Your task to perform on an android device: toggle location history Image 0: 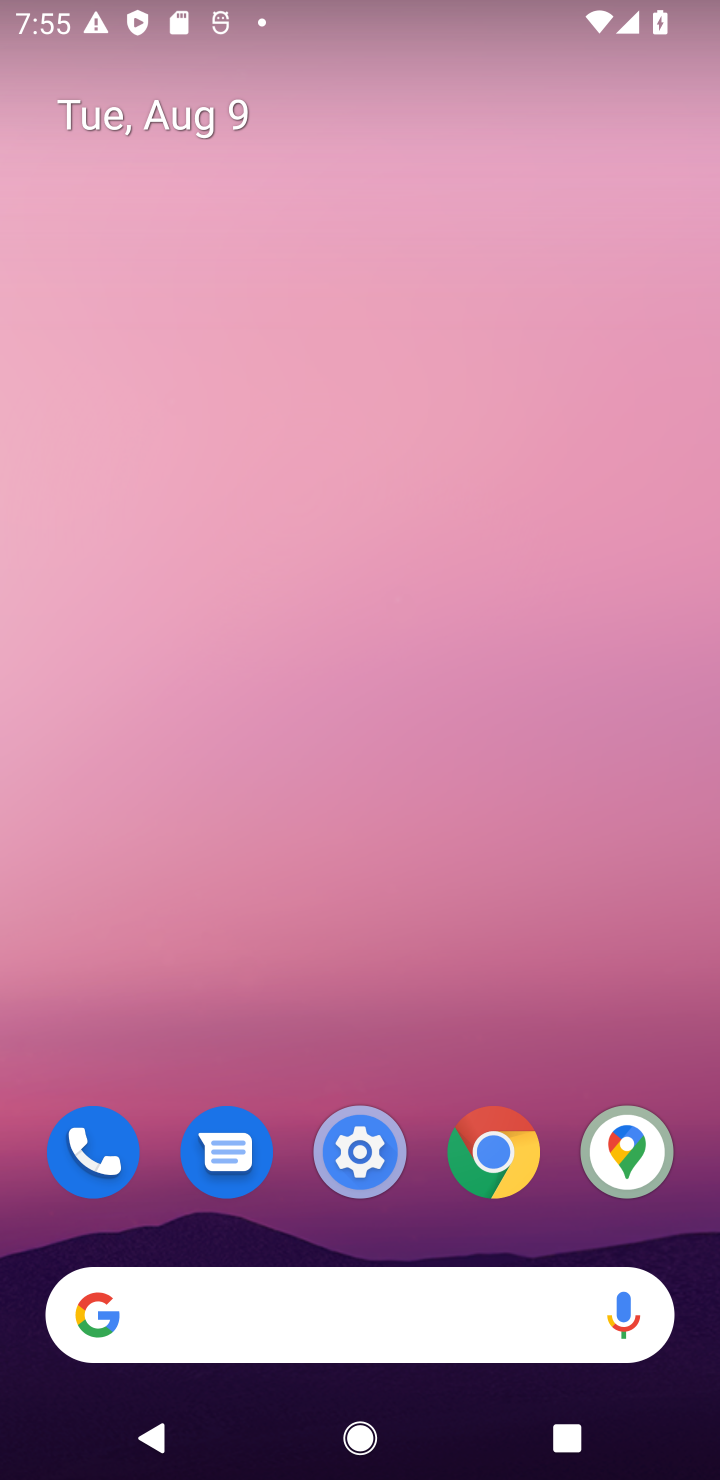
Step 0: click (385, 1146)
Your task to perform on an android device: toggle location history Image 1: 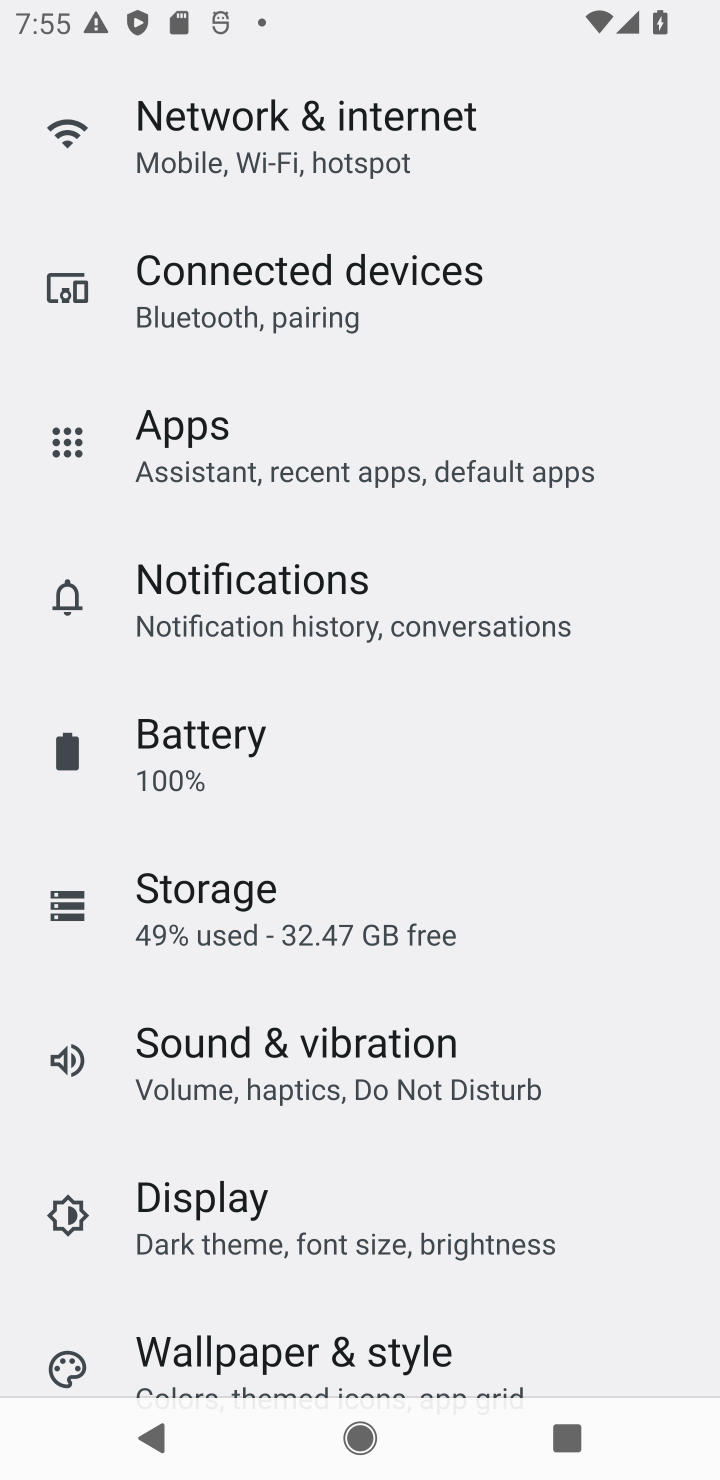
Step 1: drag from (151, 1136) to (188, 224)
Your task to perform on an android device: toggle location history Image 2: 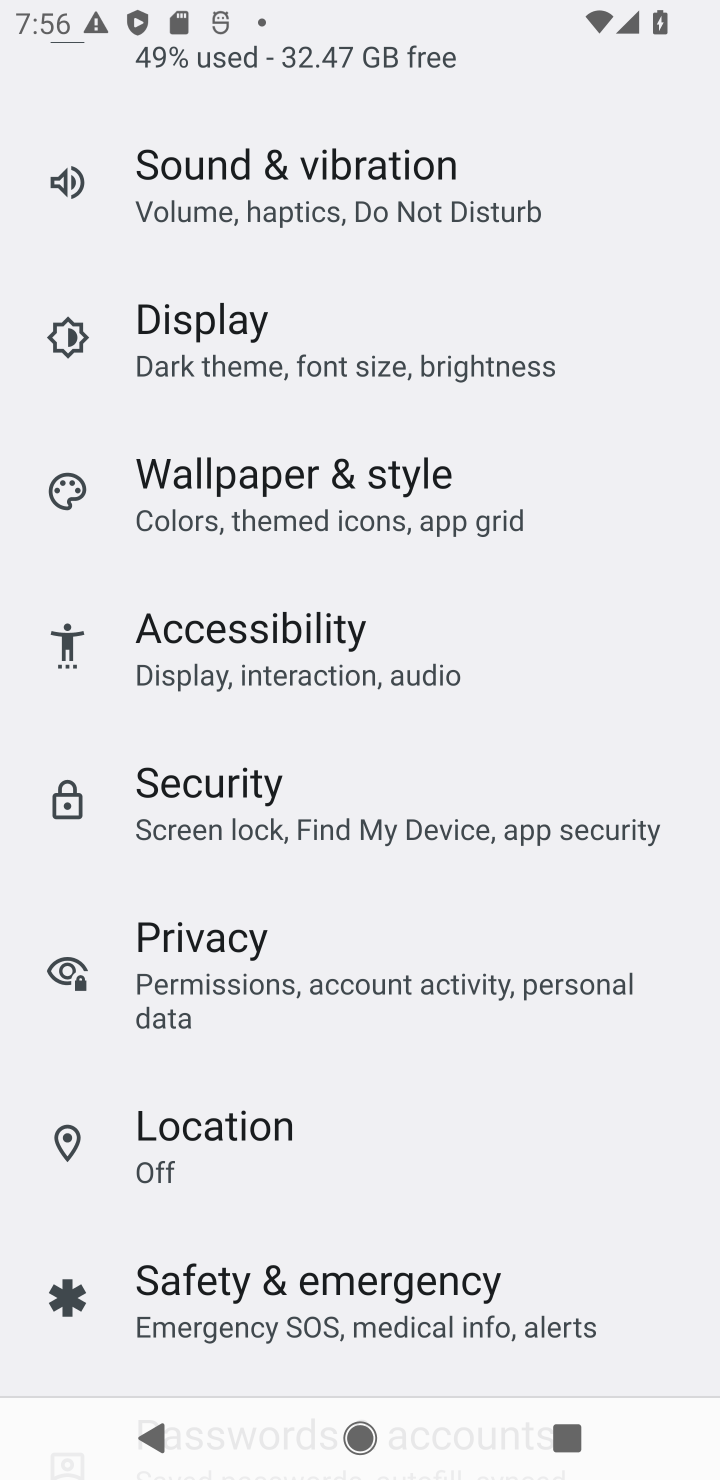
Step 2: drag from (216, 1237) to (216, 273)
Your task to perform on an android device: toggle location history Image 3: 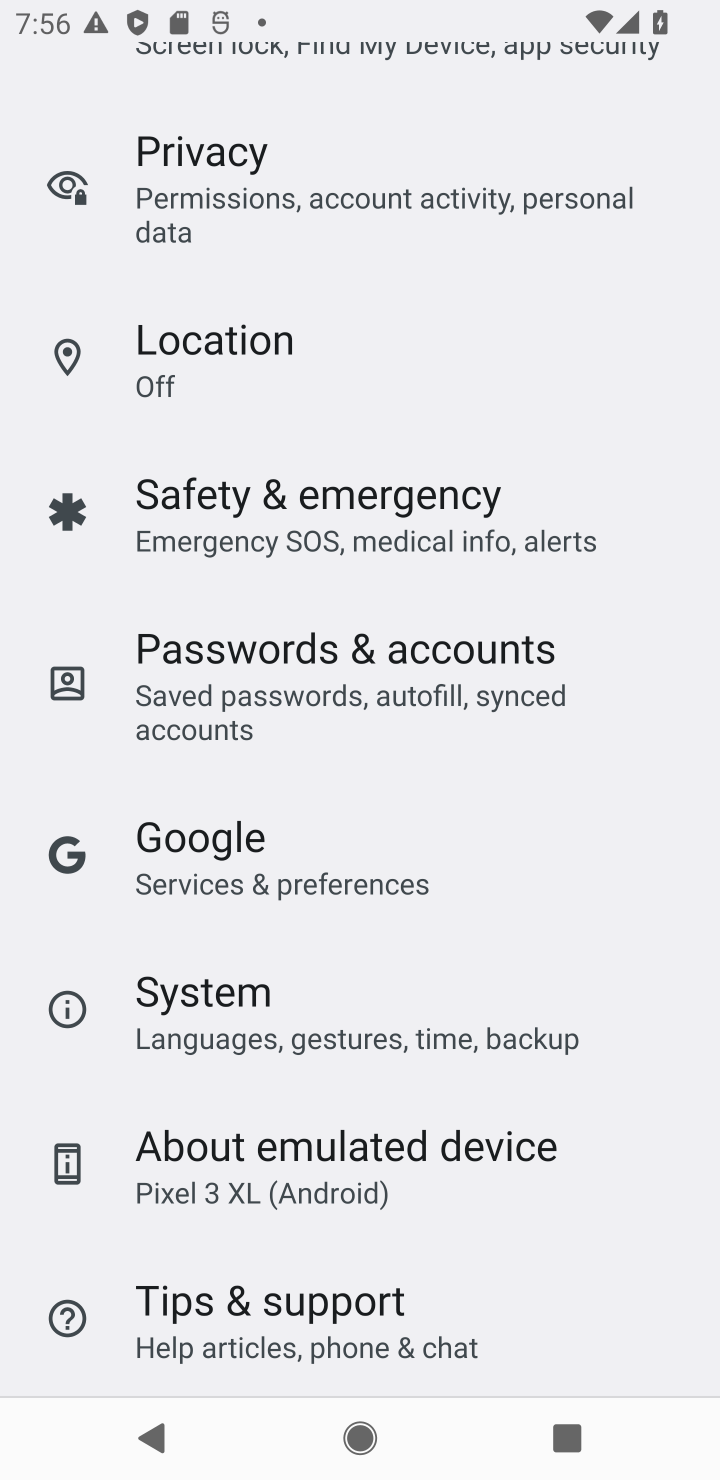
Step 3: drag from (273, 1172) to (327, 374)
Your task to perform on an android device: toggle location history Image 4: 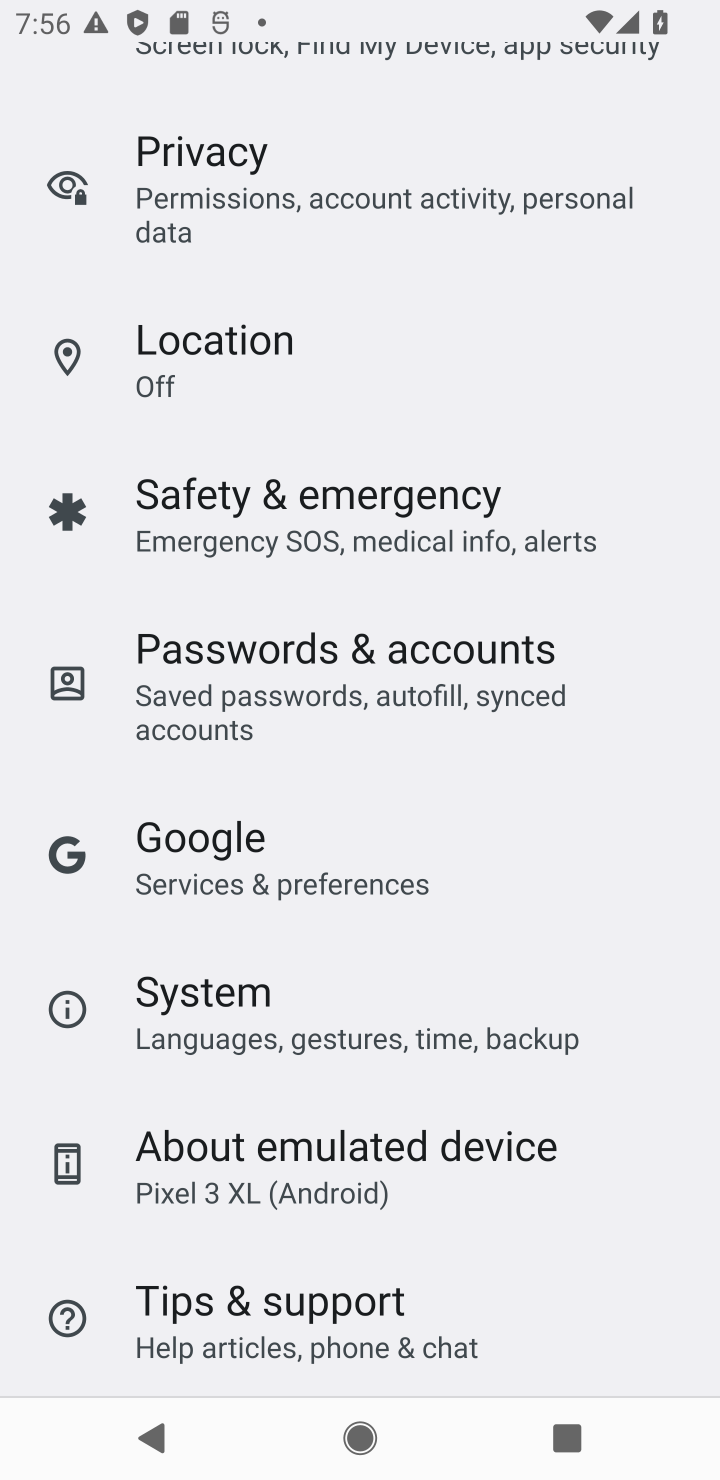
Step 4: drag from (283, 263) to (335, 1158)
Your task to perform on an android device: toggle location history Image 5: 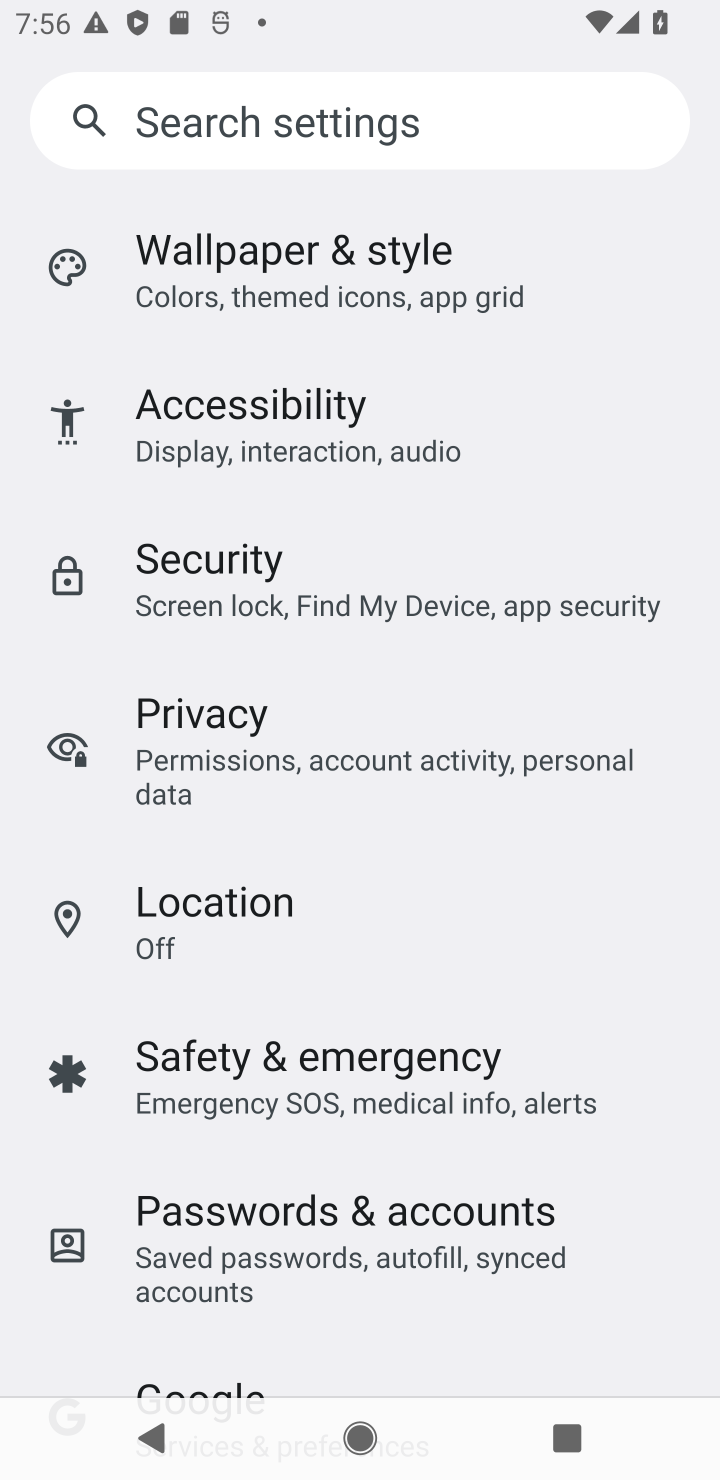
Step 5: drag from (223, 337) to (371, 1466)
Your task to perform on an android device: toggle location history Image 6: 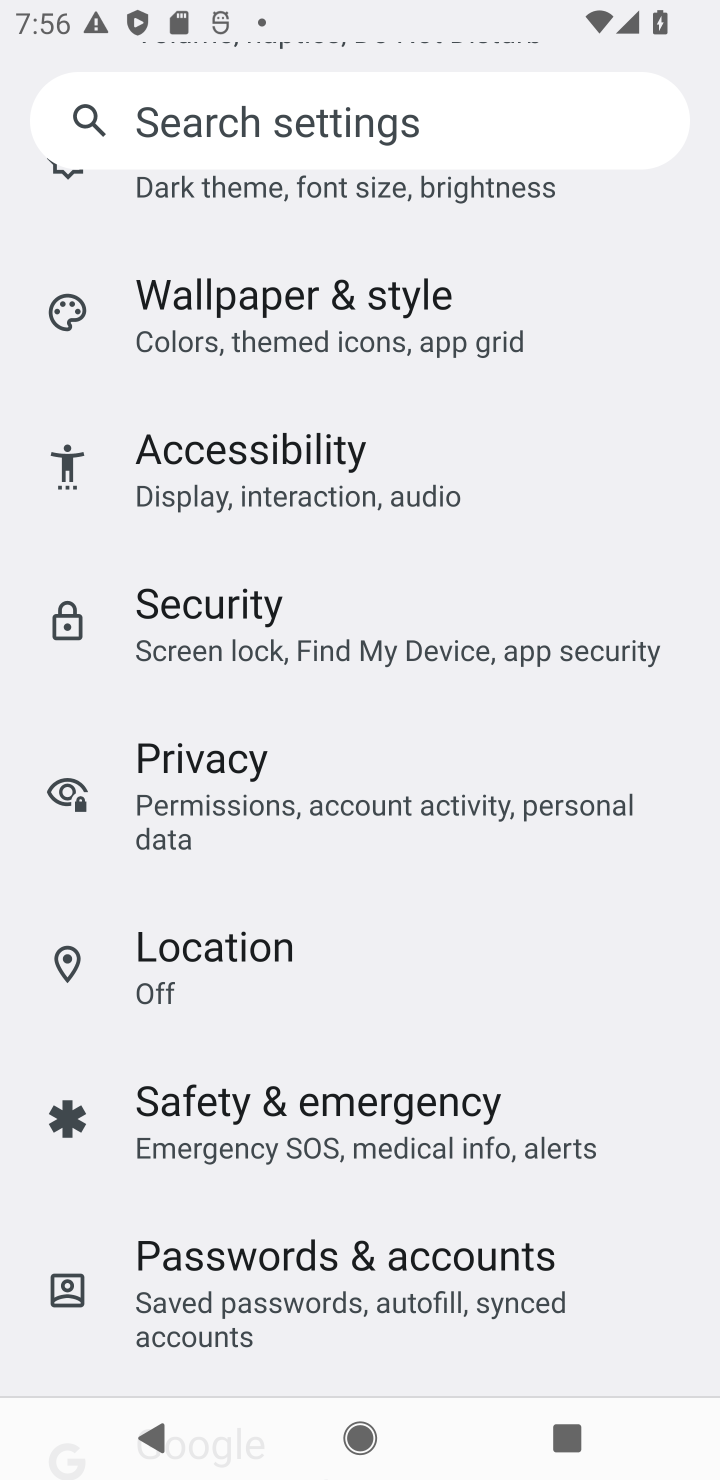
Step 6: drag from (256, 223) to (388, 1116)
Your task to perform on an android device: toggle location history Image 7: 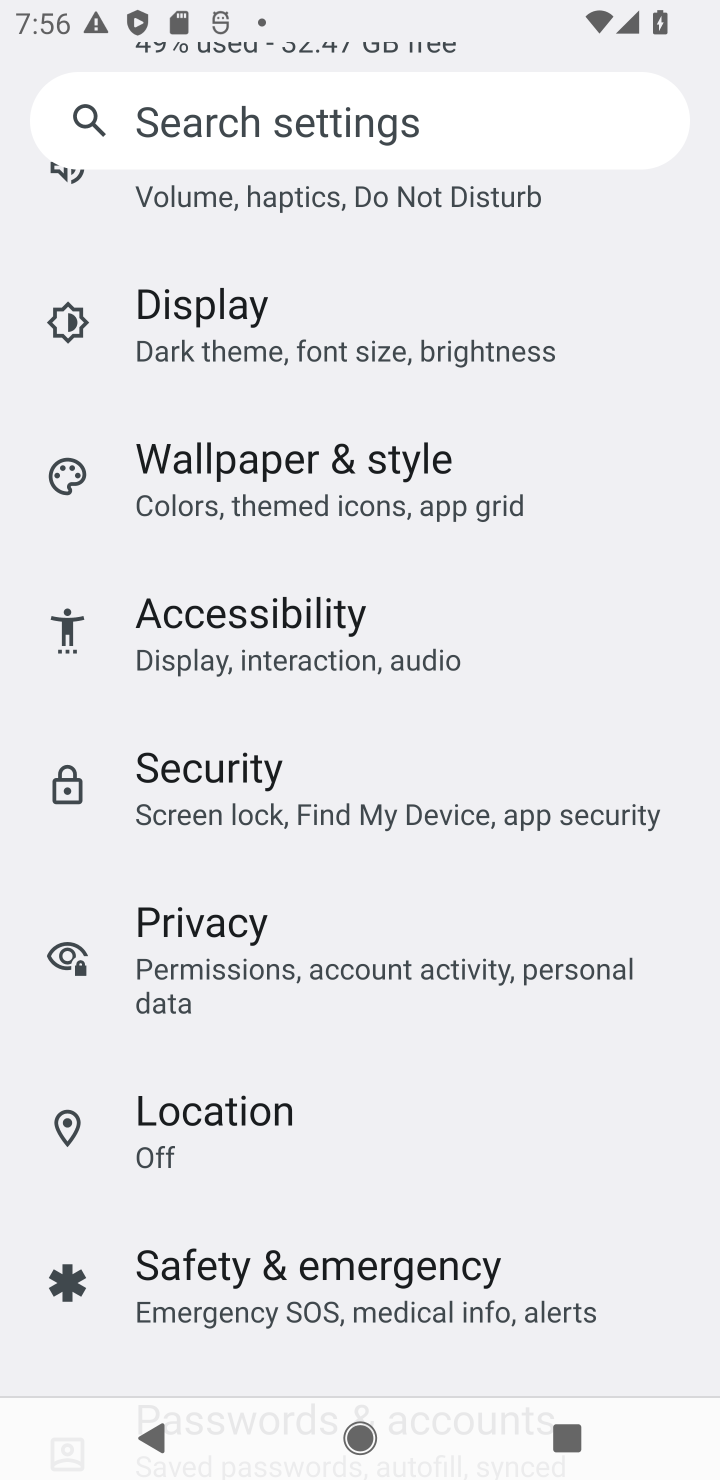
Step 7: drag from (322, 214) to (309, 1223)
Your task to perform on an android device: toggle location history Image 8: 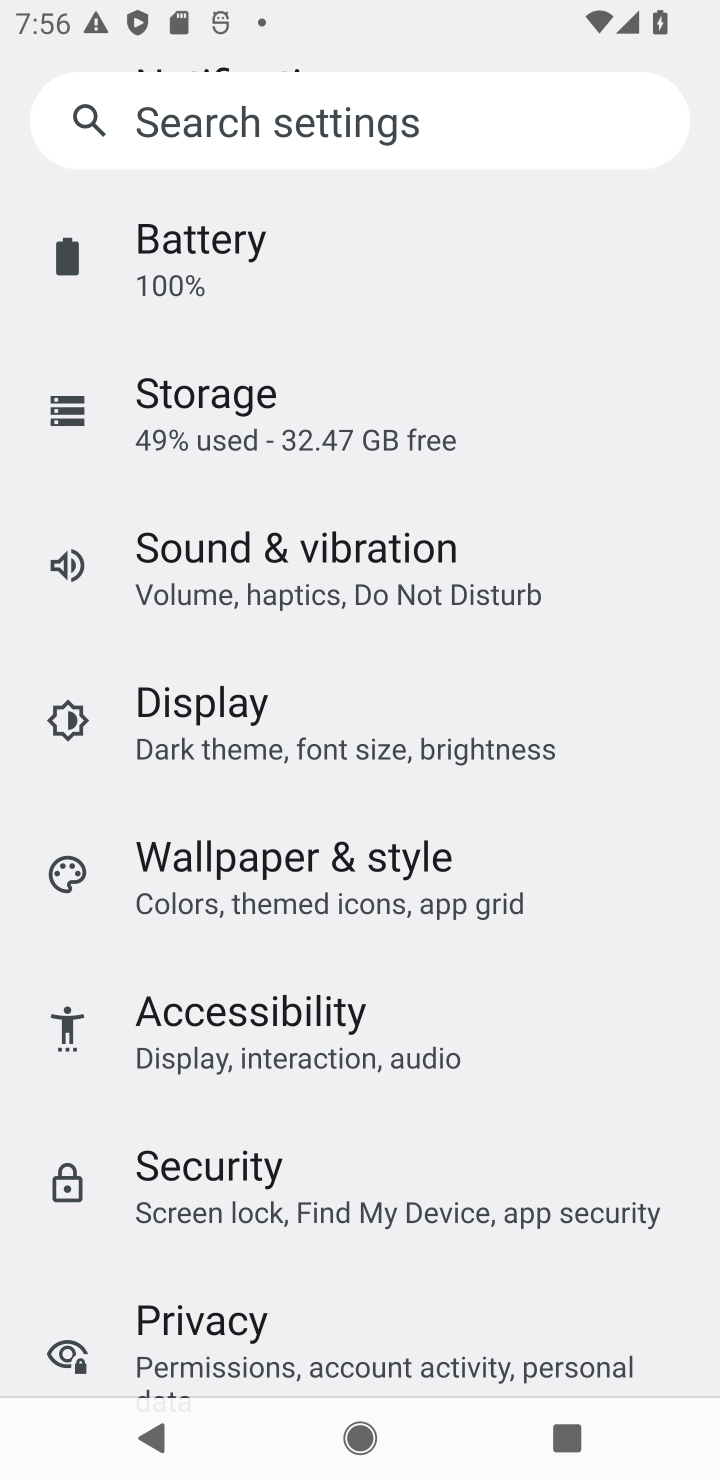
Step 8: drag from (283, 1233) to (399, 290)
Your task to perform on an android device: toggle location history Image 9: 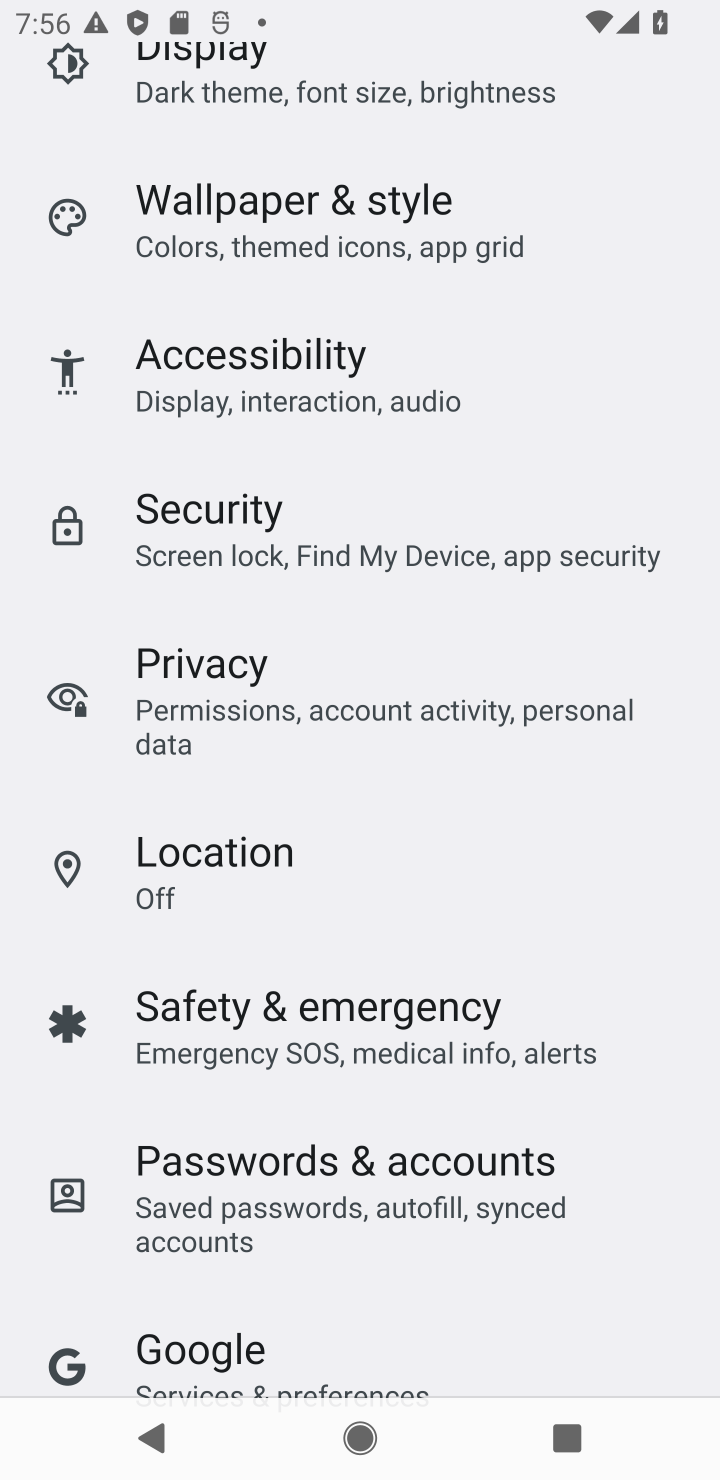
Step 9: click (315, 884)
Your task to perform on an android device: toggle location history Image 10: 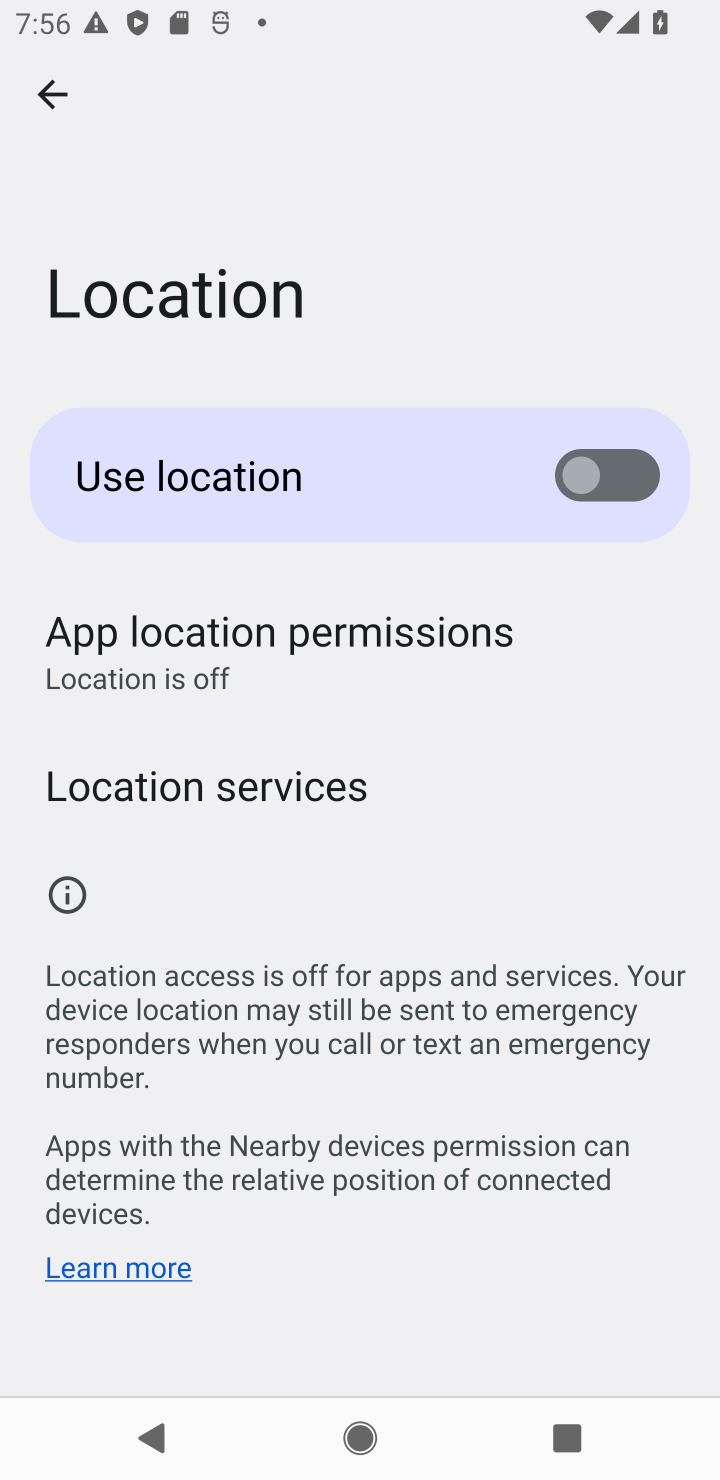
Step 10: click (296, 783)
Your task to perform on an android device: toggle location history Image 11: 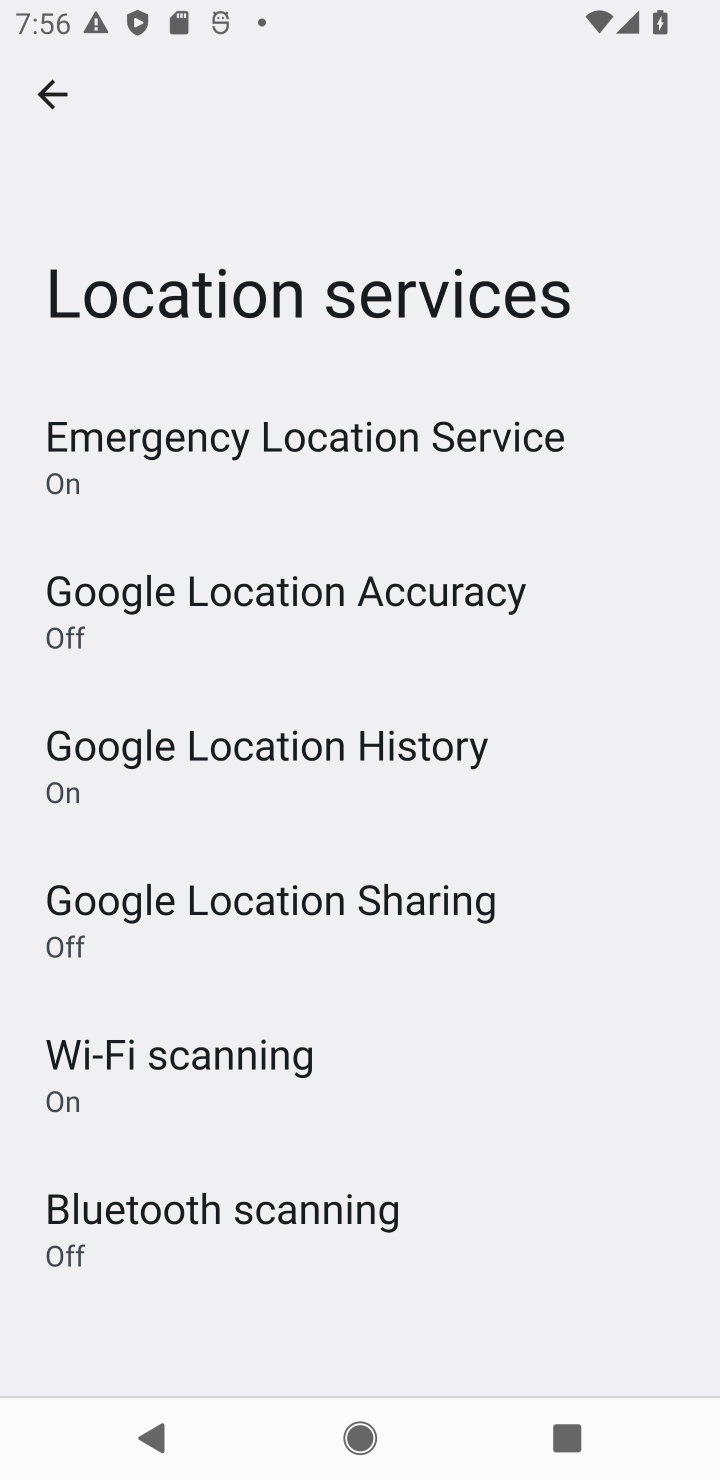
Step 11: click (296, 783)
Your task to perform on an android device: toggle location history Image 12: 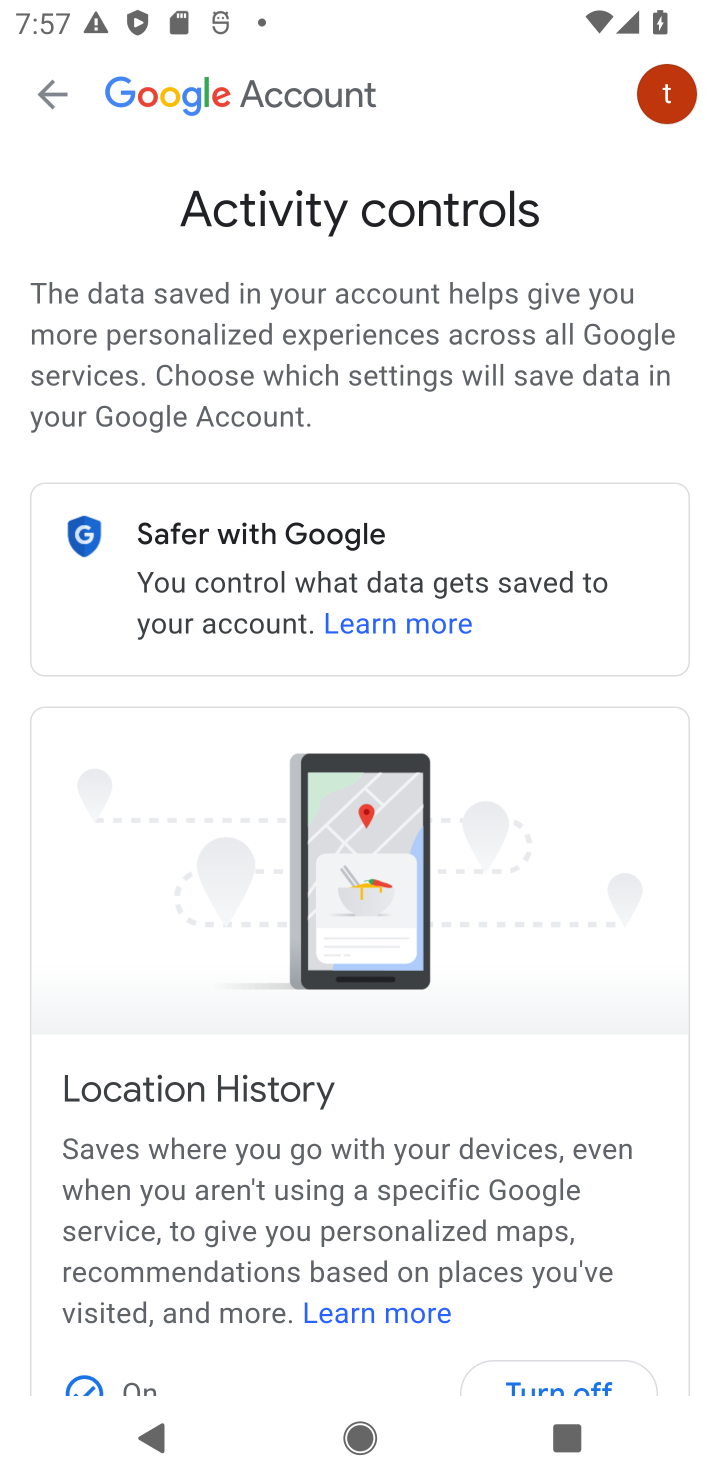
Step 12: drag from (347, 845) to (251, 219)
Your task to perform on an android device: toggle location history Image 13: 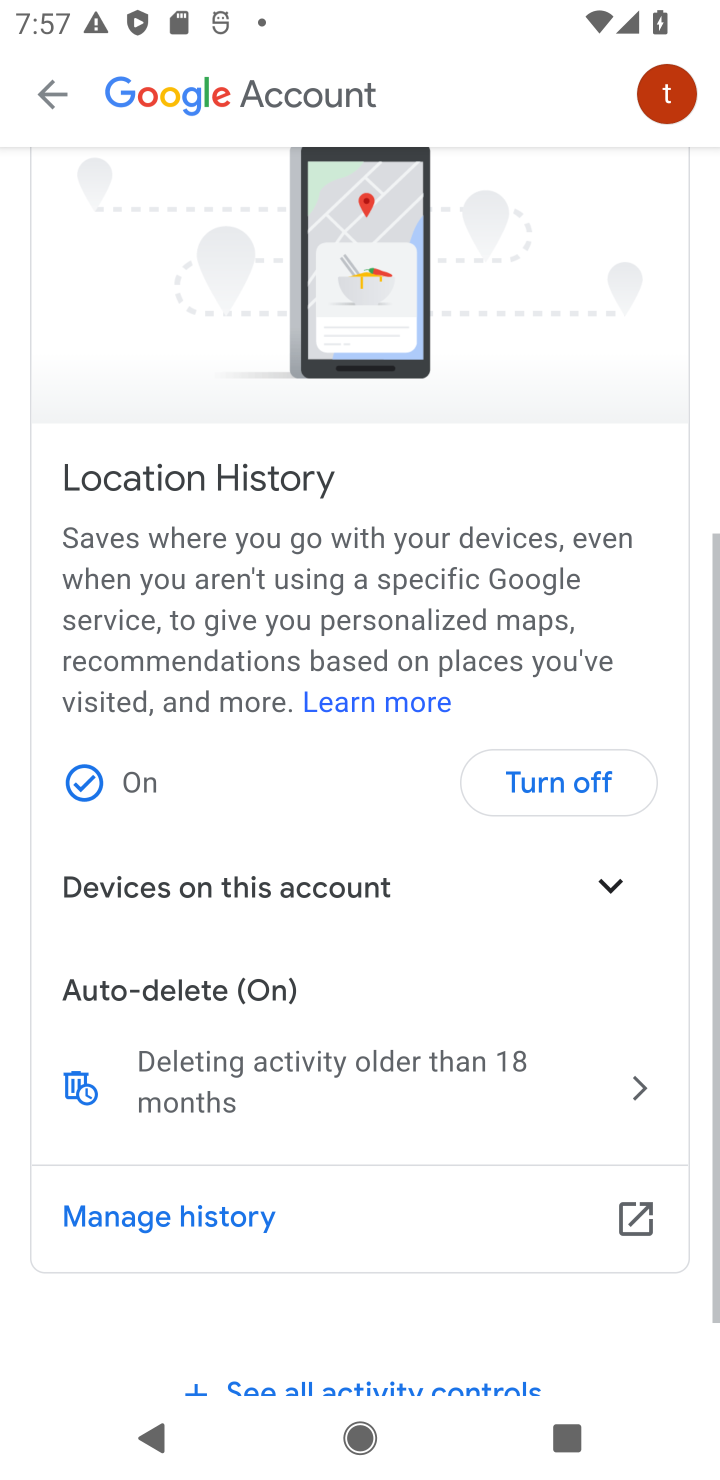
Step 13: click (564, 1384)
Your task to perform on an android device: toggle location history Image 14: 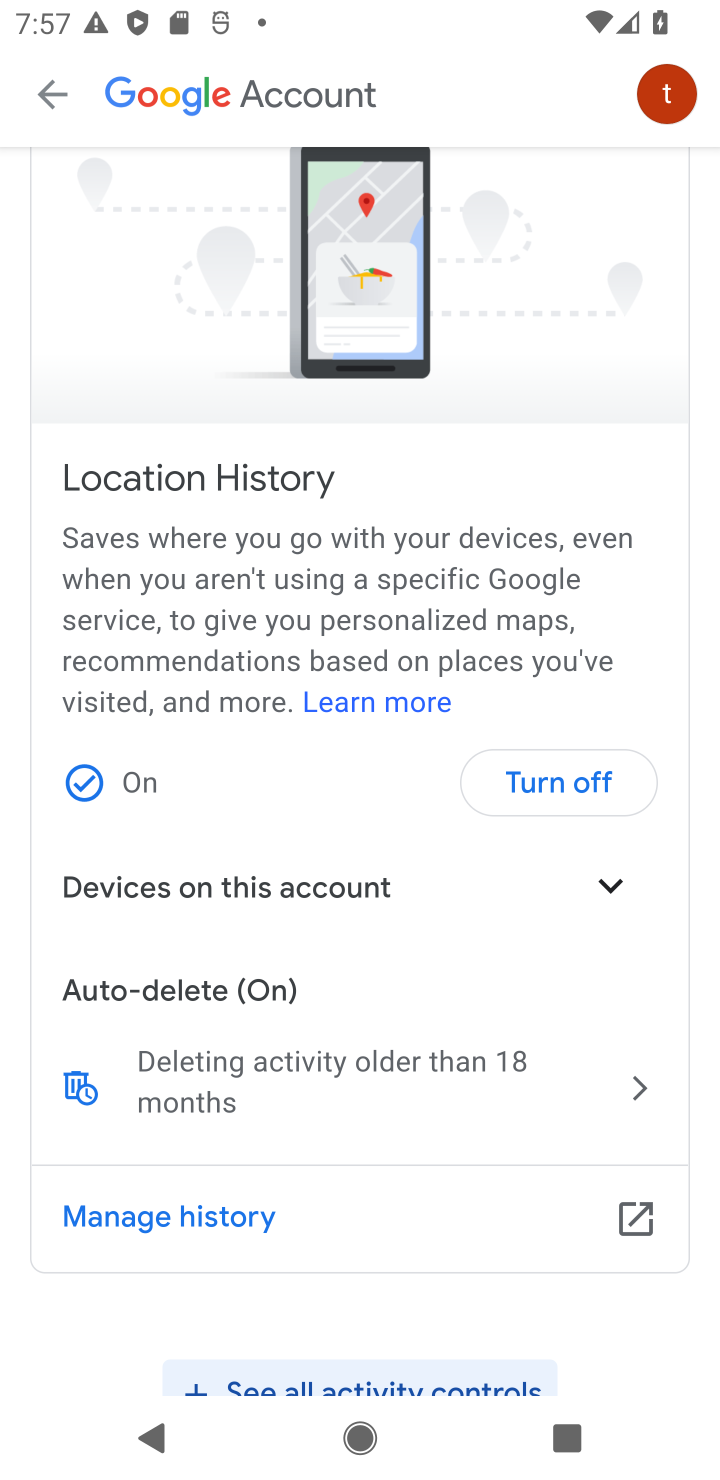
Step 14: click (529, 854)
Your task to perform on an android device: toggle location history Image 15: 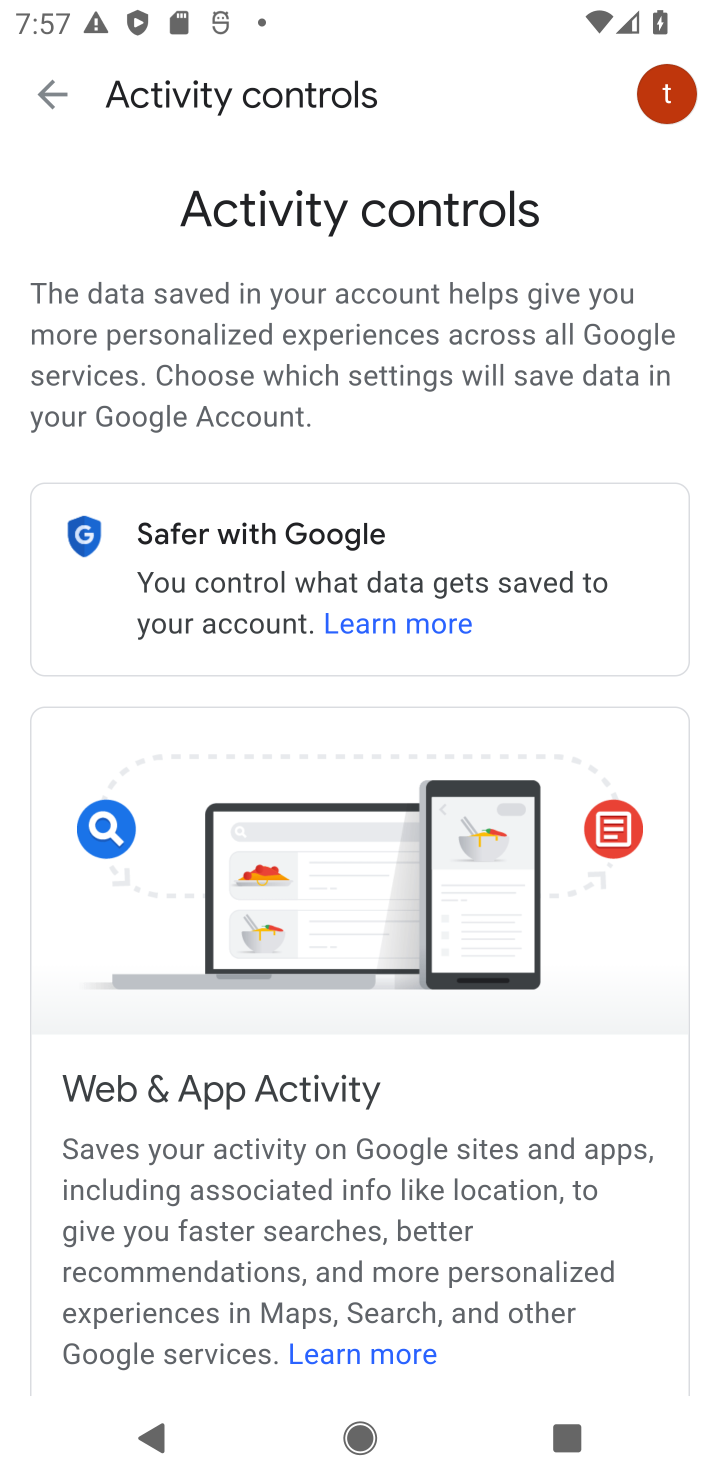
Step 15: task complete